Your task to perform on an android device: Open the calendar and show me this week's events? Image 0: 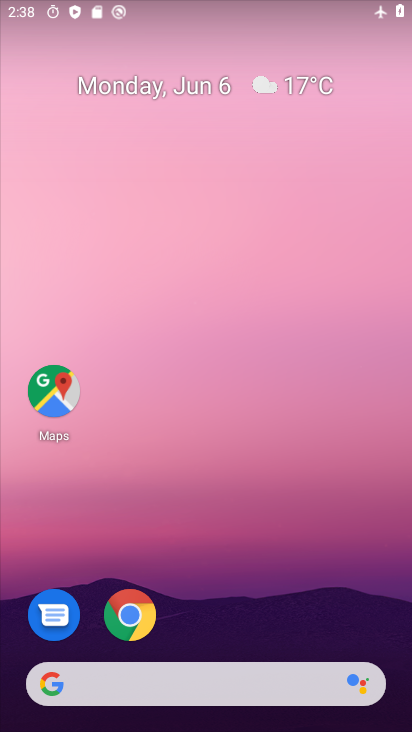
Step 0: drag from (204, 636) to (222, 68)
Your task to perform on an android device: Open the calendar and show me this week's events? Image 1: 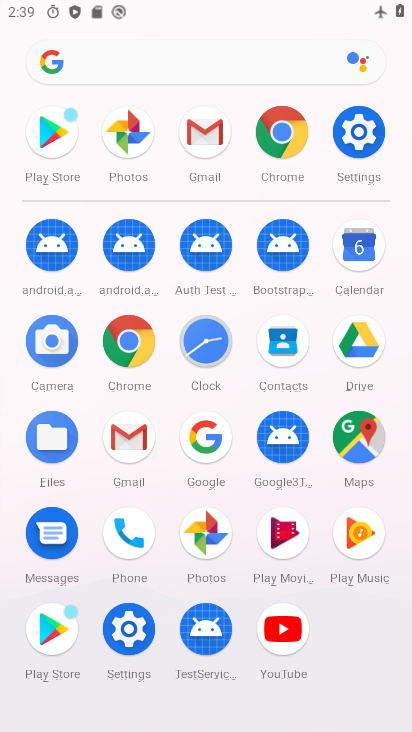
Step 1: click (363, 254)
Your task to perform on an android device: Open the calendar and show me this week's events? Image 2: 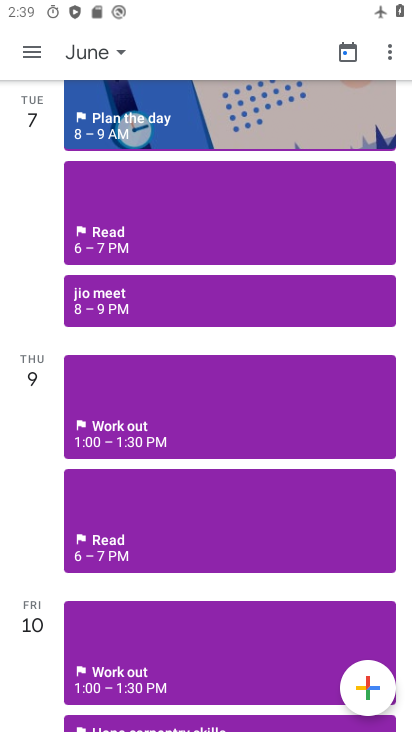
Step 2: click (33, 49)
Your task to perform on an android device: Open the calendar and show me this week's events? Image 3: 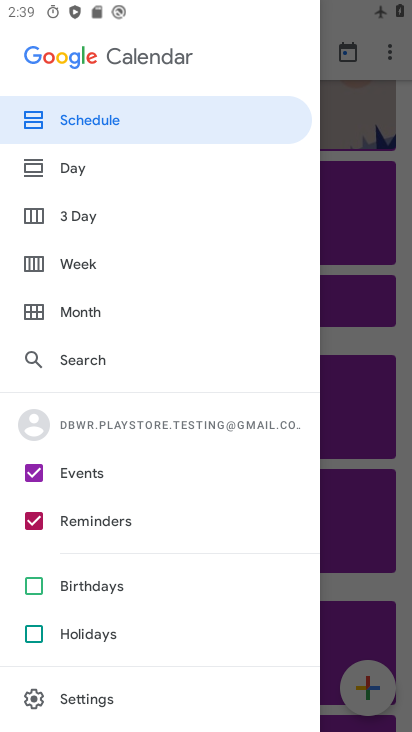
Step 3: click (99, 518)
Your task to perform on an android device: Open the calendar and show me this week's events? Image 4: 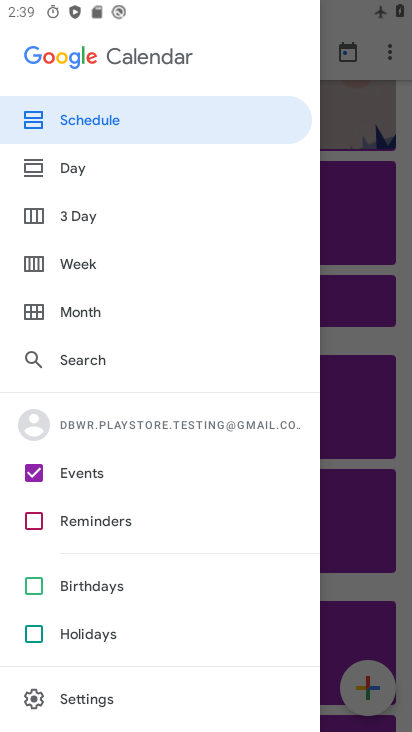
Step 4: click (79, 255)
Your task to perform on an android device: Open the calendar and show me this week's events? Image 5: 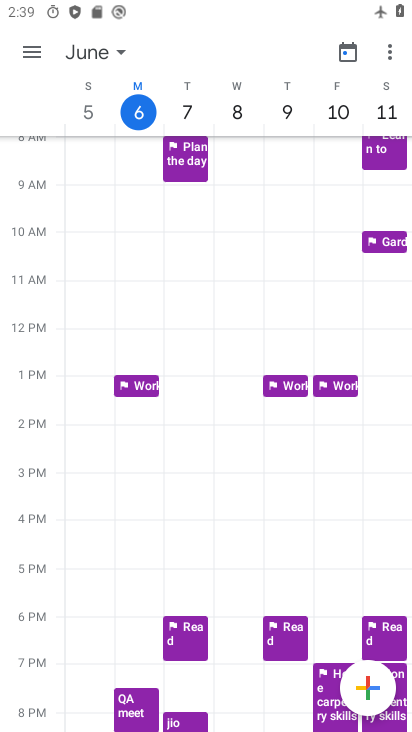
Step 5: task complete